Your task to perform on an android device: see creations saved in the google photos Image 0: 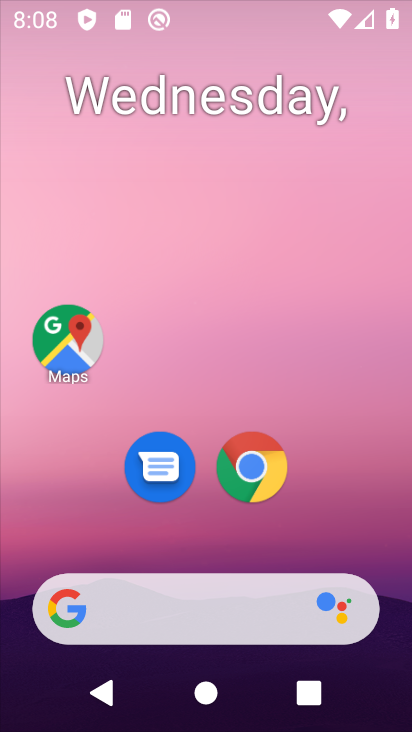
Step 0: drag from (326, 590) to (118, 15)
Your task to perform on an android device: see creations saved in the google photos Image 1: 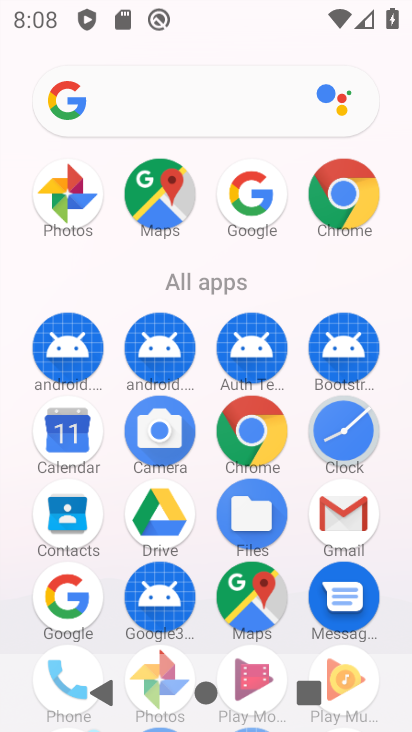
Step 1: click (61, 205)
Your task to perform on an android device: see creations saved in the google photos Image 2: 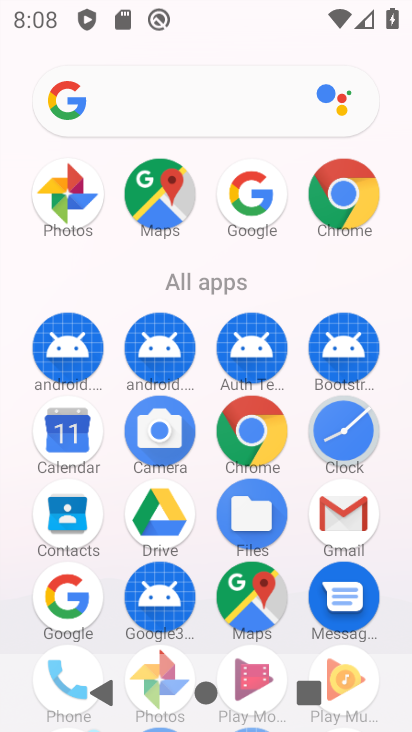
Step 2: click (61, 205)
Your task to perform on an android device: see creations saved in the google photos Image 3: 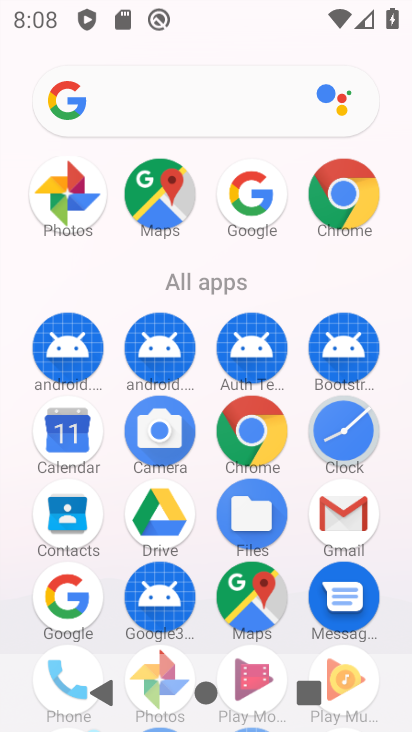
Step 3: click (63, 203)
Your task to perform on an android device: see creations saved in the google photos Image 4: 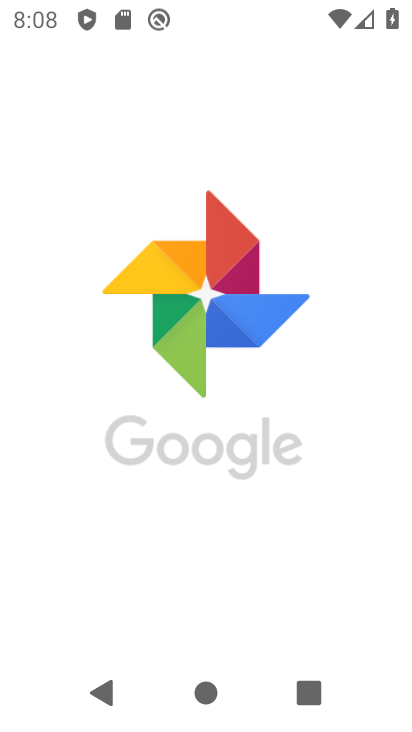
Step 4: click (63, 202)
Your task to perform on an android device: see creations saved in the google photos Image 5: 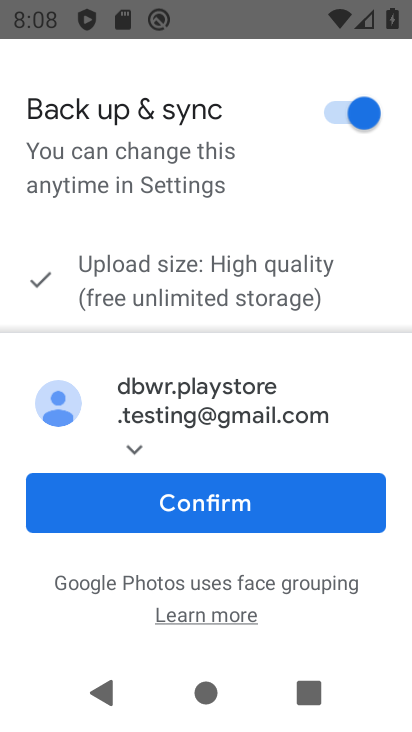
Step 5: click (222, 494)
Your task to perform on an android device: see creations saved in the google photos Image 6: 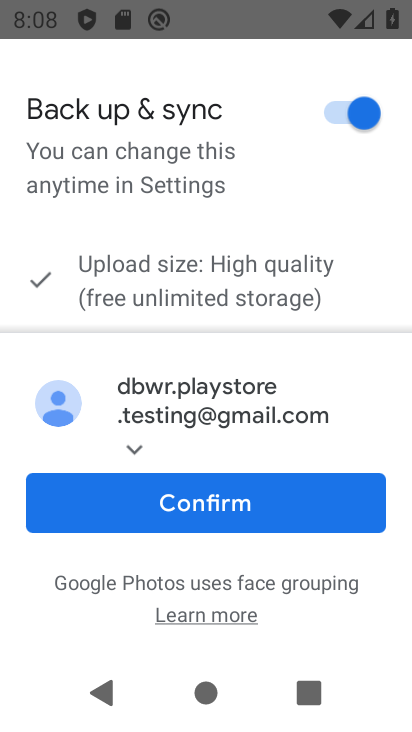
Step 6: click (222, 494)
Your task to perform on an android device: see creations saved in the google photos Image 7: 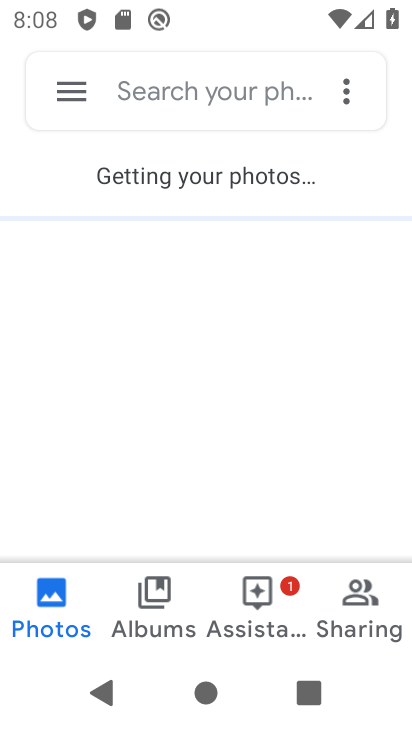
Step 7: drag from (187, 449) to (121, 29)
Your task to perform on an android device: see creations saved in the google photos Image 8: 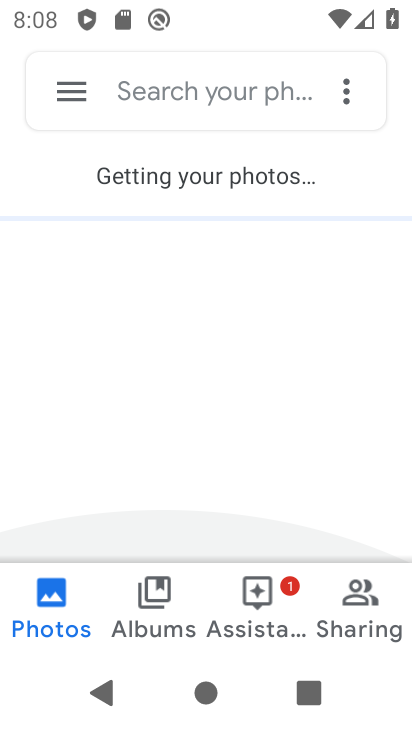
Step 8: drag from (191, 370) to (162, 28)
Your task to perform on an android device: see creations saved in the google photos Image 9: 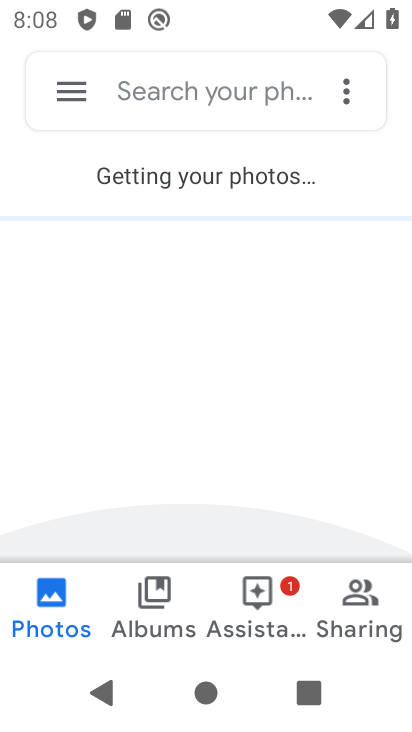
Step 9: drag from (218, 333) to (226, 47)
Your task to perform on an android device: see creations saved in the google photos Image 10: 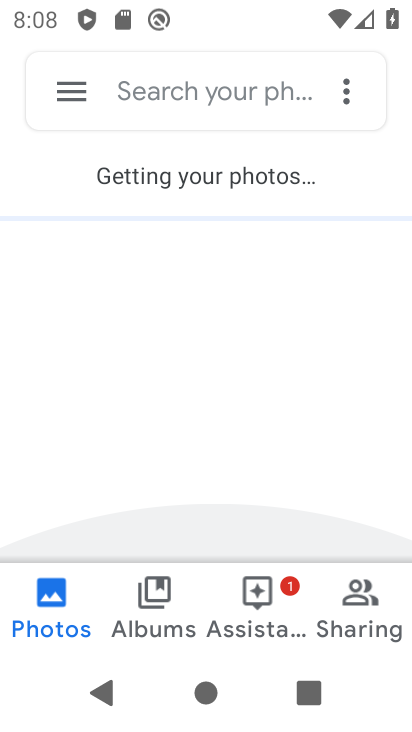
Step 10: drag from (223, 420) to (173, 23)
Your task to perform on an android device: see creations saved in the google photos Image 11: 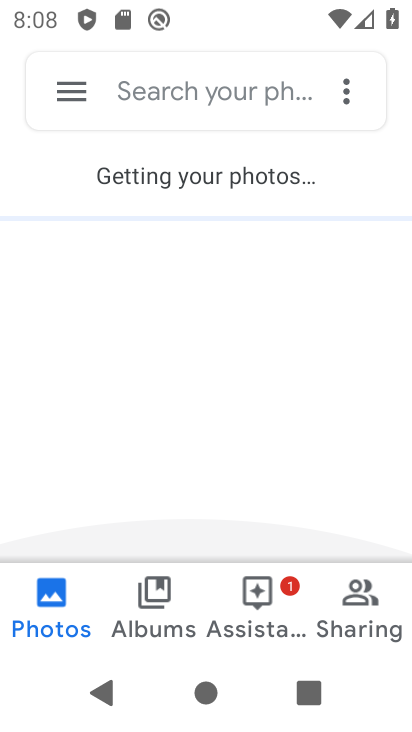
Step 11: drag from (159, 434) to (194, 14)
Your task to perform on an android device: see creations saved in the google photos Image 12: 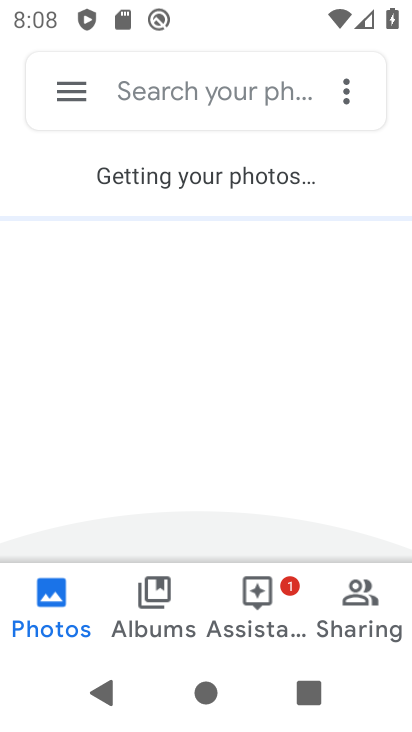
Step 12: drag from (190, 349) to (4, 79)
Your task to perform on an android device: see creations saved in the google photos Image 13: 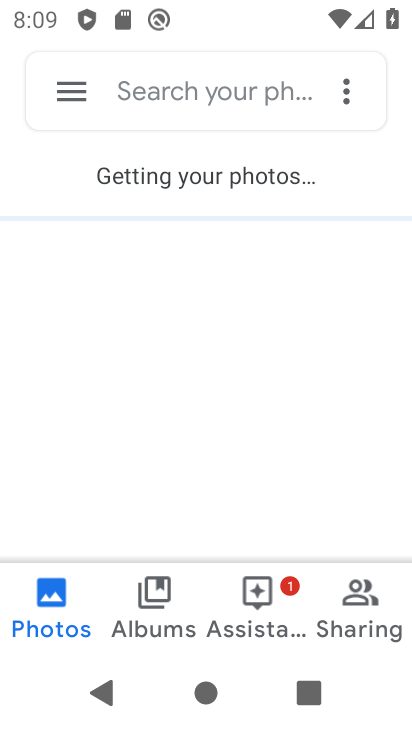
Step 13: drag from (126, 425) to (104, 5)
Your task to perform on an android device: see creations saved in the google photos Image 14: 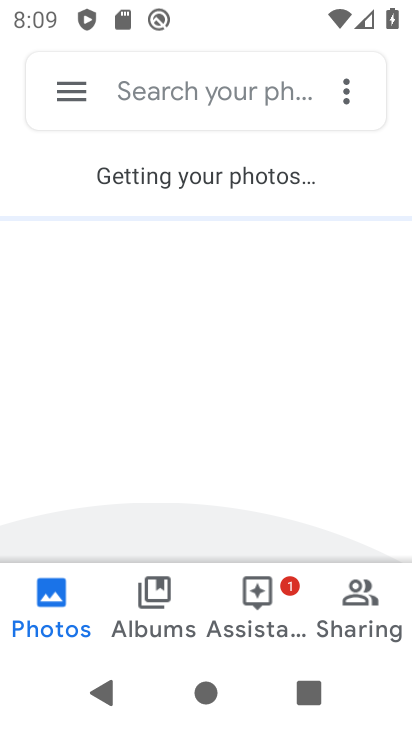
Step 14: drag from (162, 400) to (50, 11)
Your task to perform on an android device: see creations saved in the google photos Image 15: 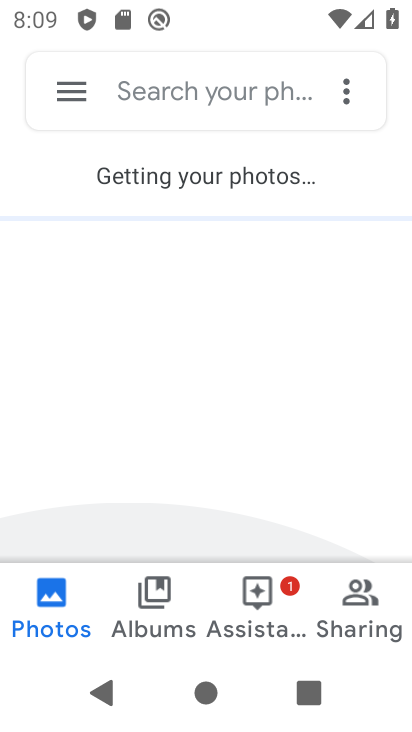
Step 15: drag from (232, 471) to (176, 6)
Your task to perform on an android device: see creations saved in the google photos Image 16: 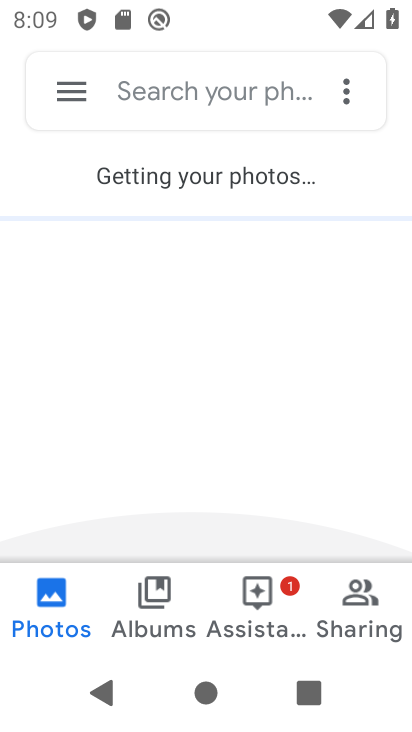
Step 16: drag from (208, 444) to (144, 13)
Your task to perform on an android device: see creations saved in the google photos Image 17: 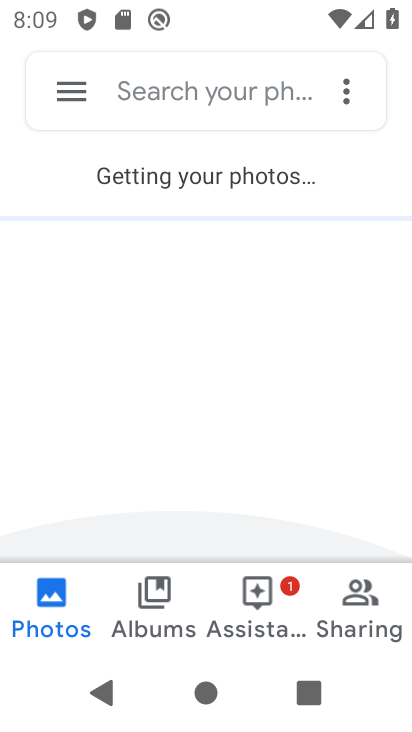
Step 17: drag from (178, 413) to (146, 77)
Your task to perform on an android device: see creations saved in the google photos Image 18: 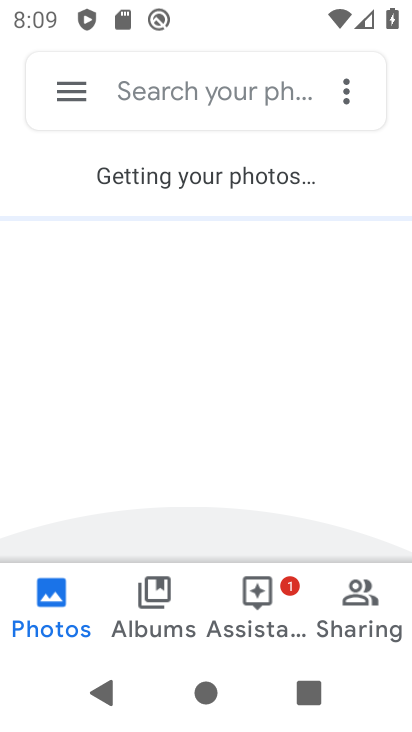
Step 18: drag from (246, 476) to (171, 29)
Your task to perform on an android device: see creations saved in the google photos Image 19: 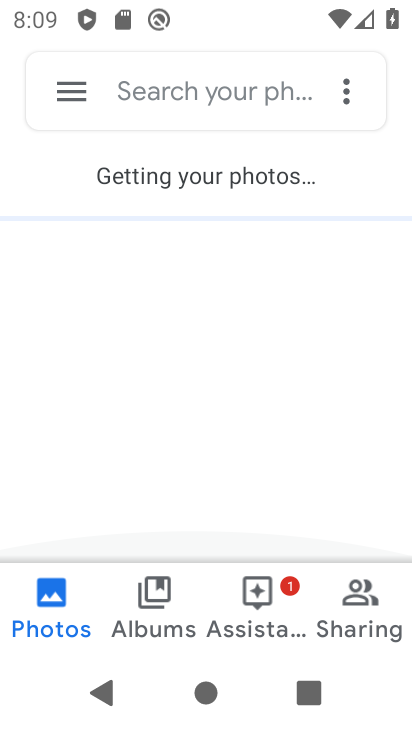
Step 19: drag from (239, 35) to (241, 0)
Your task to perform on an android device: see creations saved in the google photos Image 20: 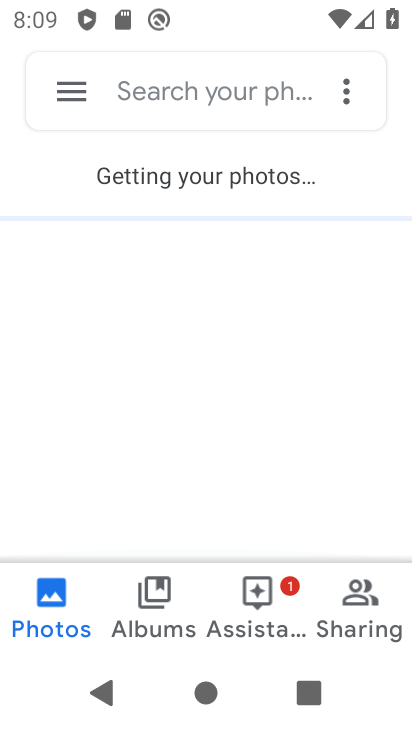
Step 20: drag from (246, 63) to (238, 6)
Your task to perform on an android device: see creations saved in the google photos Image 21: 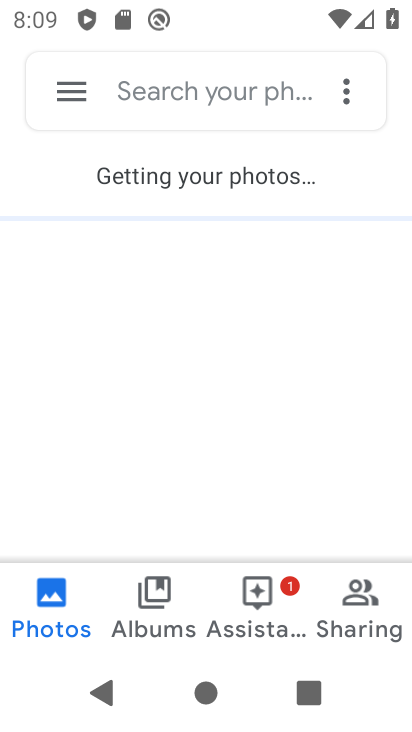
Step 21: drag from (230, 324) to (71, 14)
Your task to perform on an android device: see creations saved in the google photos Image 22: 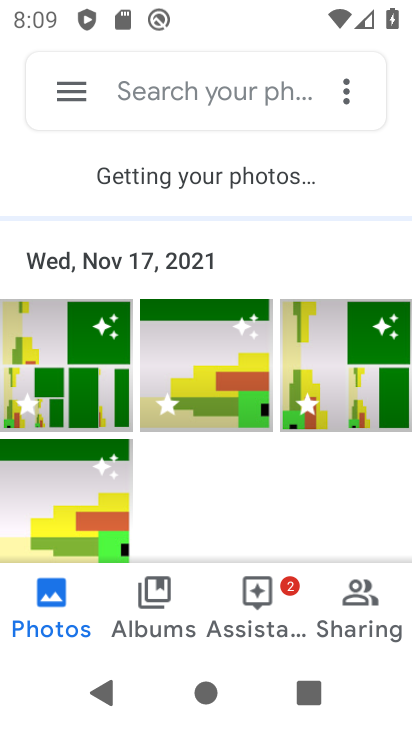
Step 22: drag from (120, 449) to (60, 98)
Your task to perform on an android device: see creations saved in the google photos Image 23: 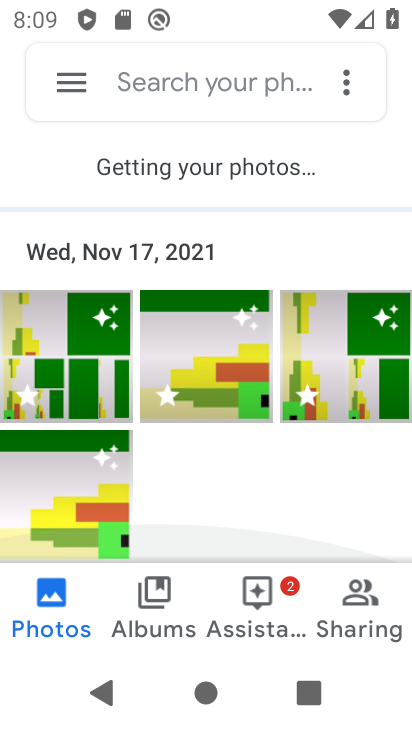
Step 23: drag from (49, 349) to (49, 85)
Your task to perform on an android device: see creations saved in the google photos Image 24: 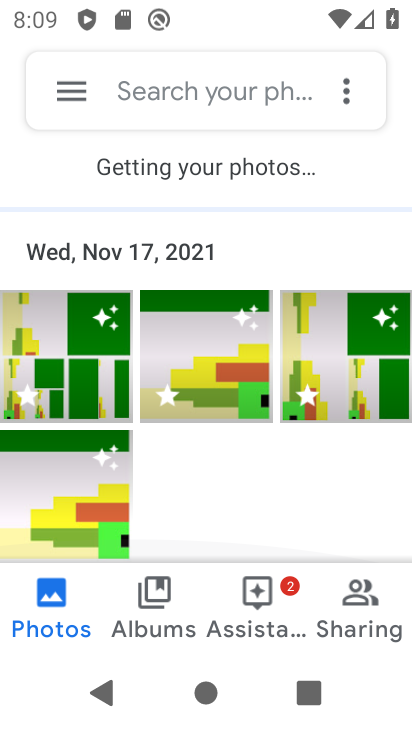
Step 24: drag from (71, 301) to (97, 71)
Your task to perform on an android device: see creations saved in the google photos Image 25: 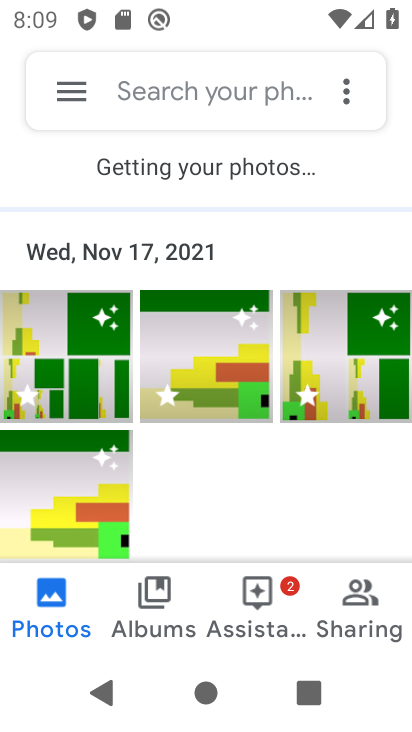
Step 25: drag from (248, 429) to (250, 50)
Your task to perform on an android device: see creations saved in the google photos Image 26: 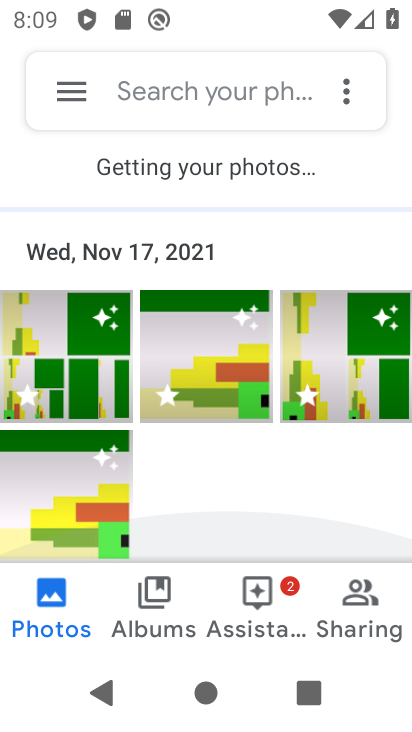
Step 26: drag from (167, 441) to (91, 37)
Your task to perform on an android device: see creations saved in the google photos Image 27: 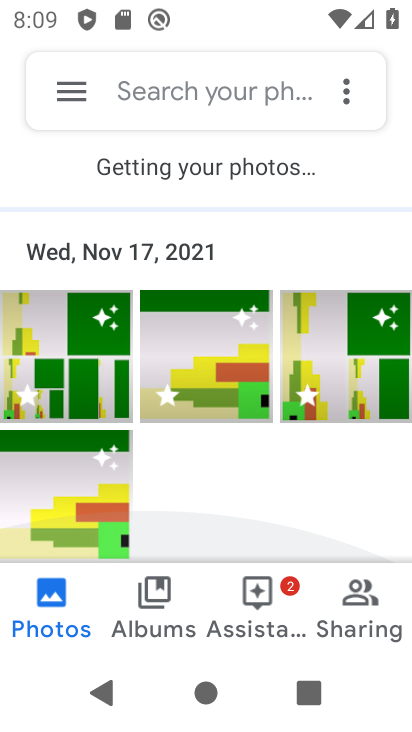
Step 27: drag from (38, 583) to (6, 132)
Your task to perform on an android device: see creations saved in the google photos Image 28: 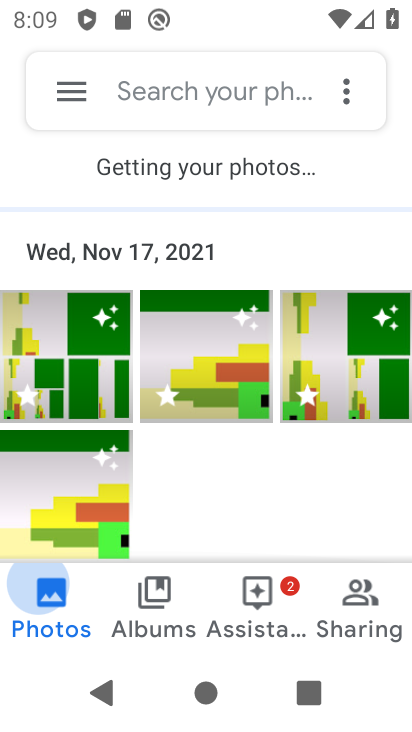
Step 28: drag from (125, 556) to (136, 18)
Your task to perform on an android device: see creations saved in the google photos Image 29: 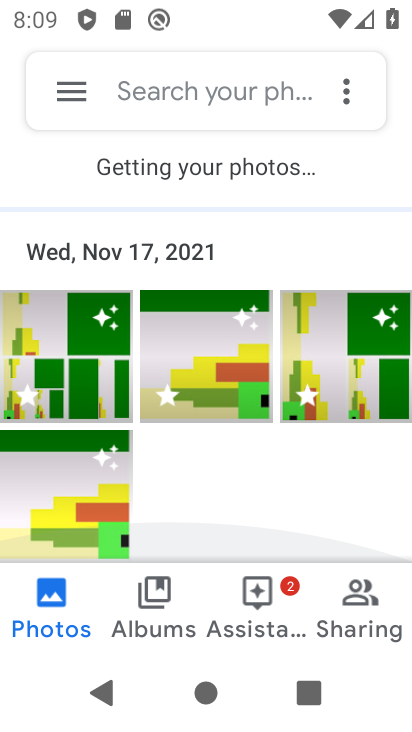
Step 29: drag from (130, 399) to (70, 88)
Your task to perform on an android device: see creations saved in the google photos Image 30: 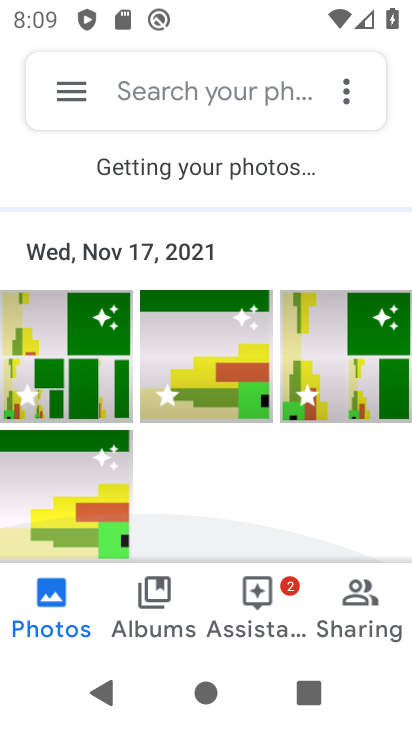
Step 30: drag from (163, 409) to (153, 117)
Your task to perform on an android device: see creations saved in the google photos Image 31: 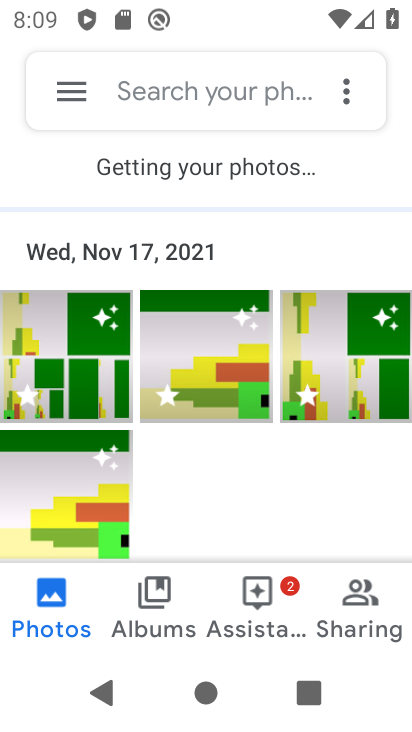
Step 31: drag from (81, 435) to (66, 242)
Your task to perform on an android device: see creations saved in the google photos Image 32: 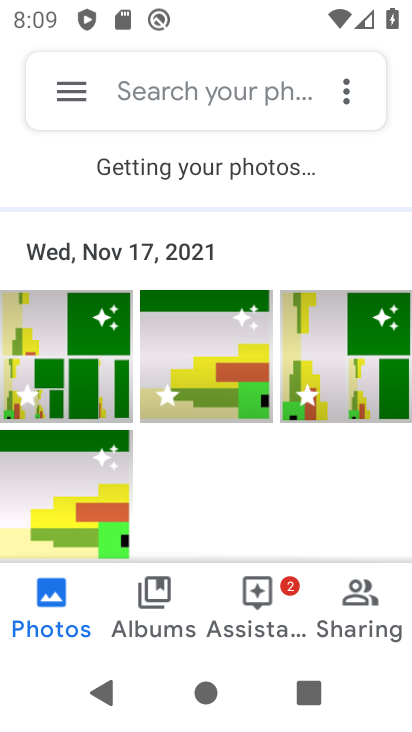
Step 32: click (48, 77)
Your task to perform on an android device: see creations saved in the google photos Image 33: 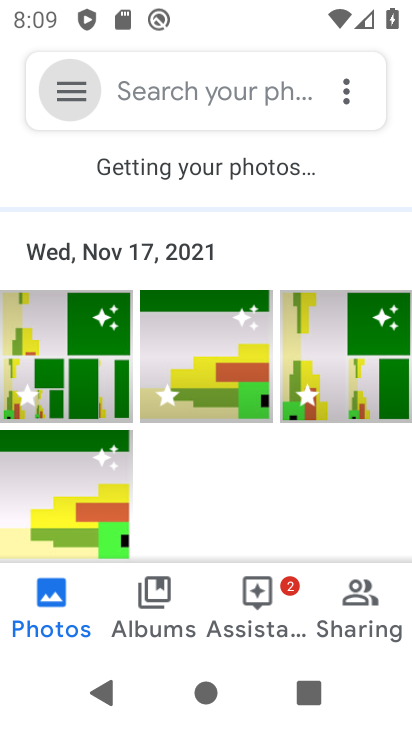
Step 33: drag from (151, 442) to (129, 117)
Your task to perform on an android device: see creations saved in the google photos Image 34: 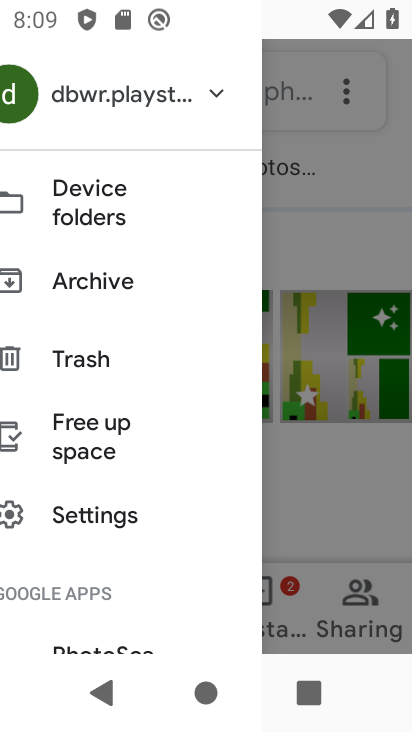
Step 34: drag from (155, 457) to (57, 76)
Your task to perform on an android device: see creations saved in the google photos Image 35: 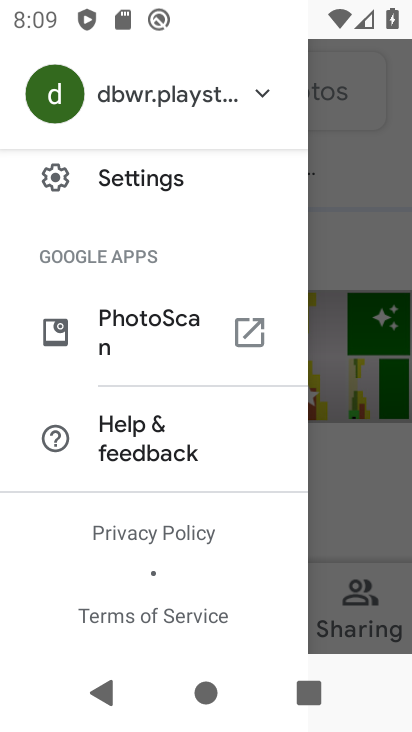
Step 35: drag from (159, 393) to (135, 134)
Your task to perform on an android device: see creations saved in the google photos Image 36: 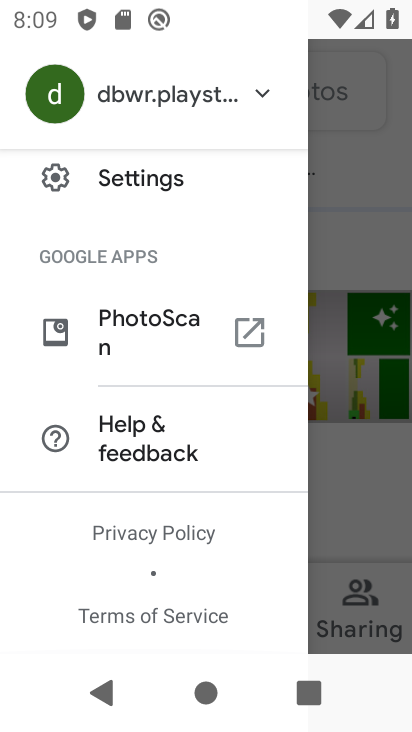
Step 36: click (355, 267)
Your task to perform on an android device: see creations saved in the google photos Image 37: 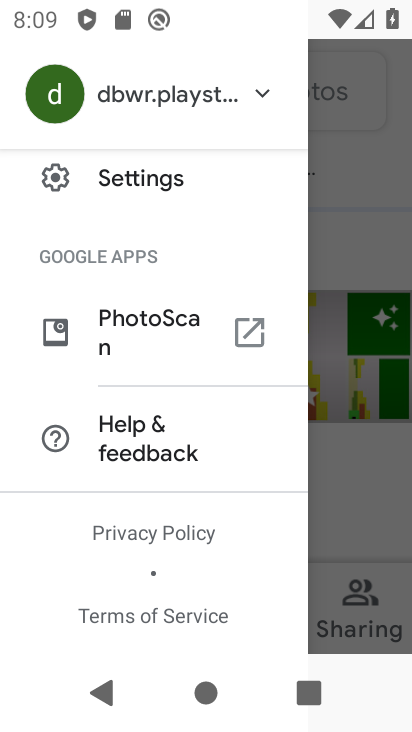
Step 37: click (355, 267)
Your task to perform on an android device: see creations saved in the google photos Image 38: 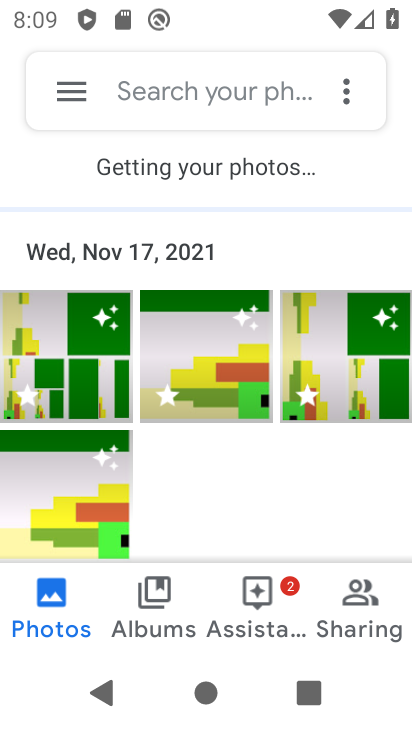
Step 38: task complete